Your task to perform on an android device: see creations saved in the google photos Image 0: 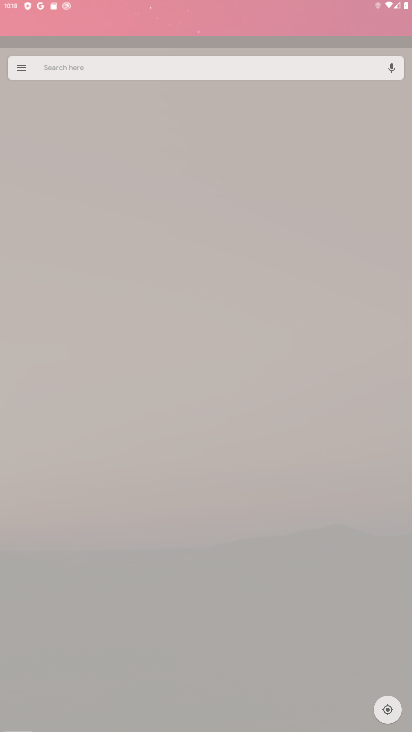
Step 0: click (329, 16)
Your task to perform on an android device: see creations saved in the google photos Image 1: 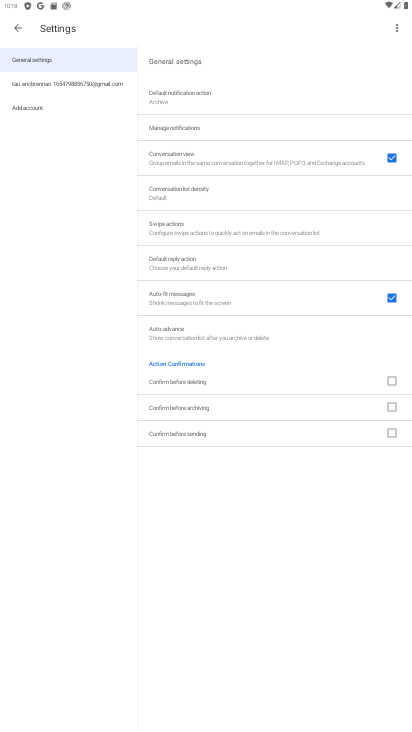
Step 1: press home button
Your task to perform on an android device: see creations saved in the google photos Image 2: 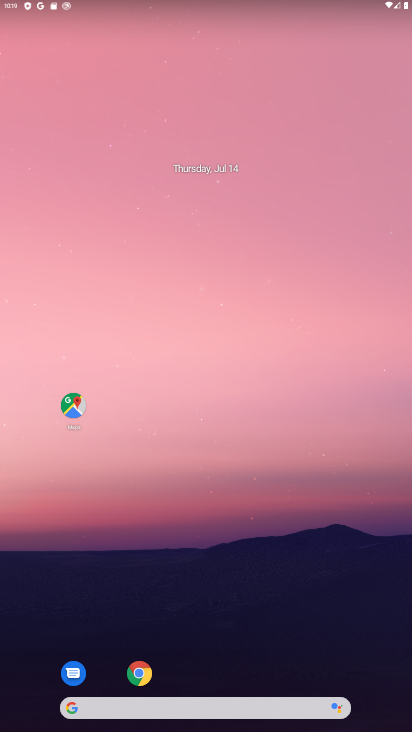
Step 2: drag from (226, 634) to (212, 58)
Your task to perform on an android device: see creations saved in the google photos Image 3: 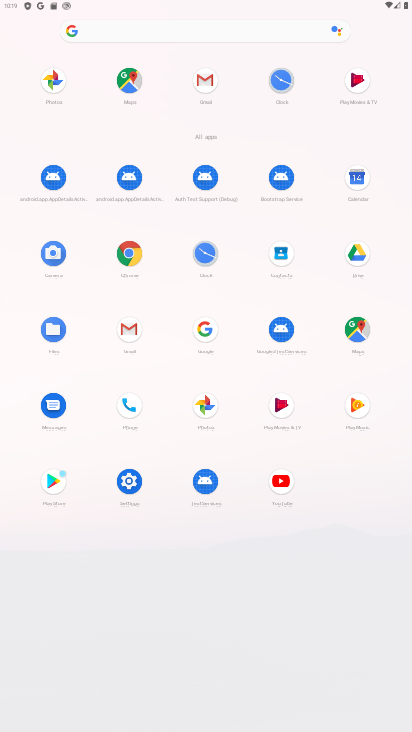
Step 3: click (196, 401)
Your task to perform on an android device: see creations saved in the google photos Image 4: 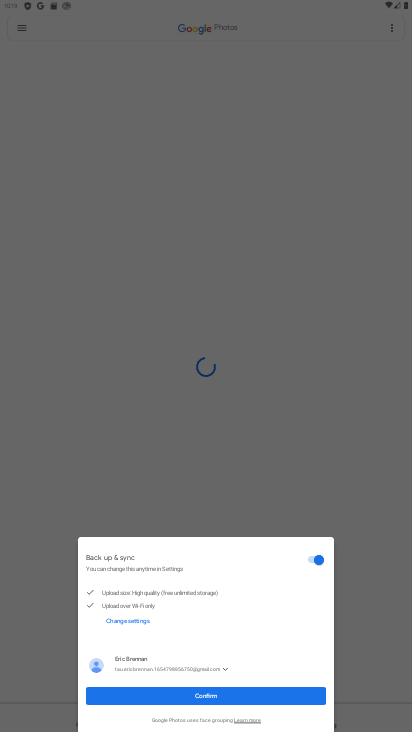
Step 4: click (189, 691)
Your task to perform on an android device: see creations saved in the google photos Image 5: 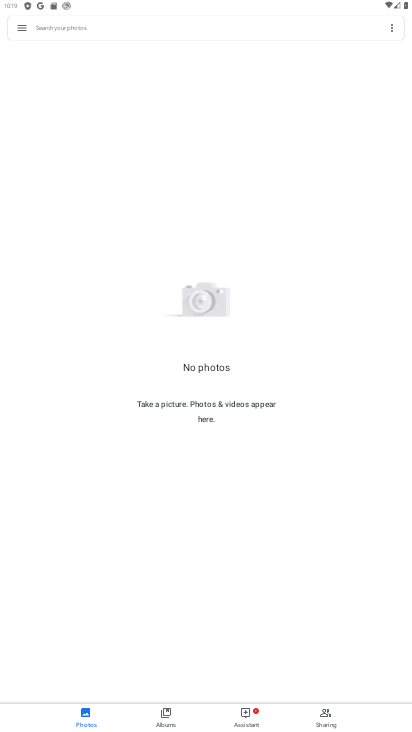
Step 5: click (172, 716)
Your task to perform on an android device: see creations saved in the google photos Image 6: 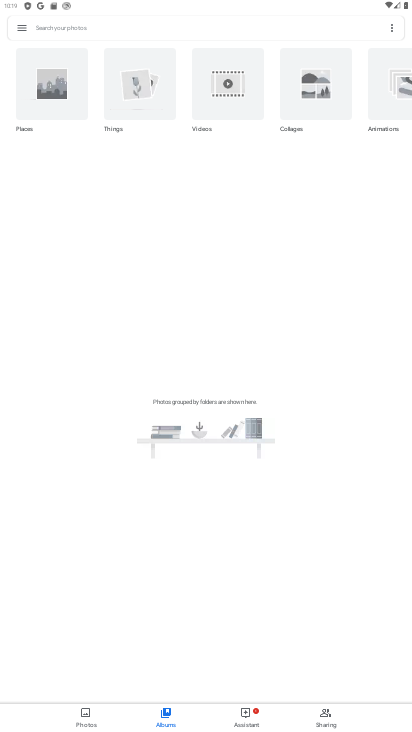
Step 6: task complete